Your task to perform on an android device: turn on notifications settings in the gmail app Image 0: 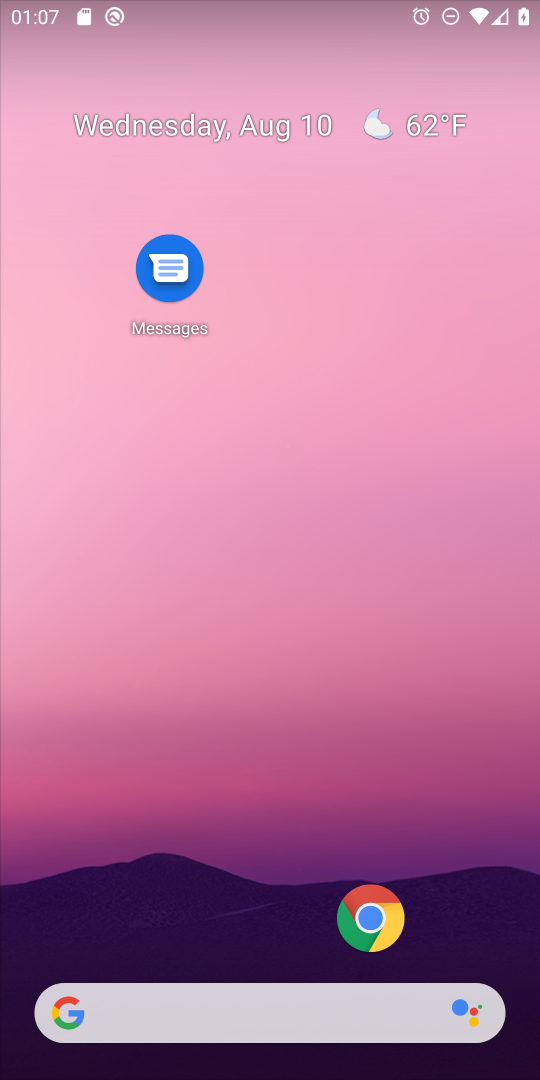
Step 0: drag from (135, 868) to (430, 101)
Your task to perform on an android device: turn on notifications settings in the gmail app Image 1: 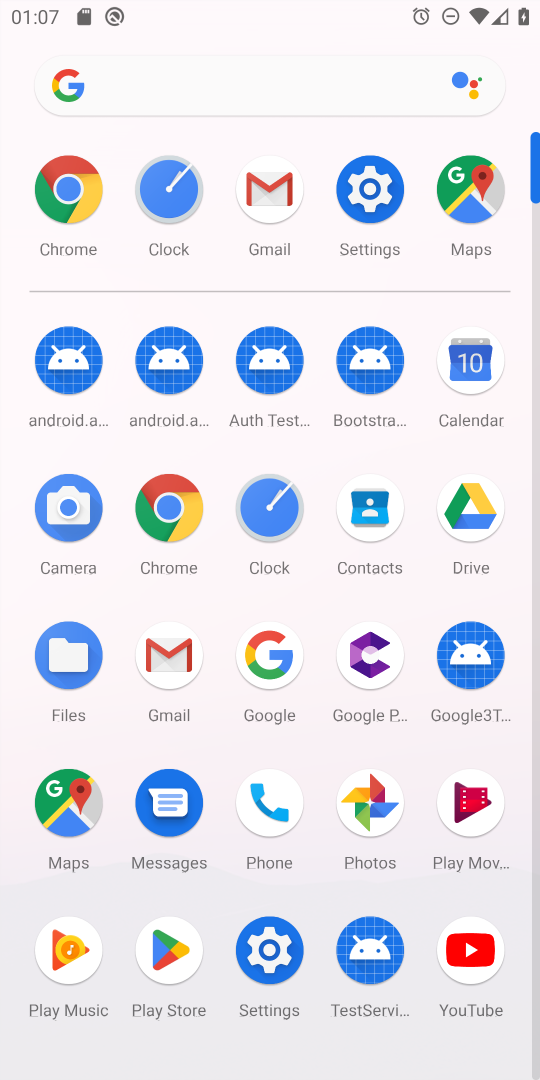
Step 1: click (165, 657)
Your task to perform on an android device: turn on notifications settings in the gmail app Image 2: 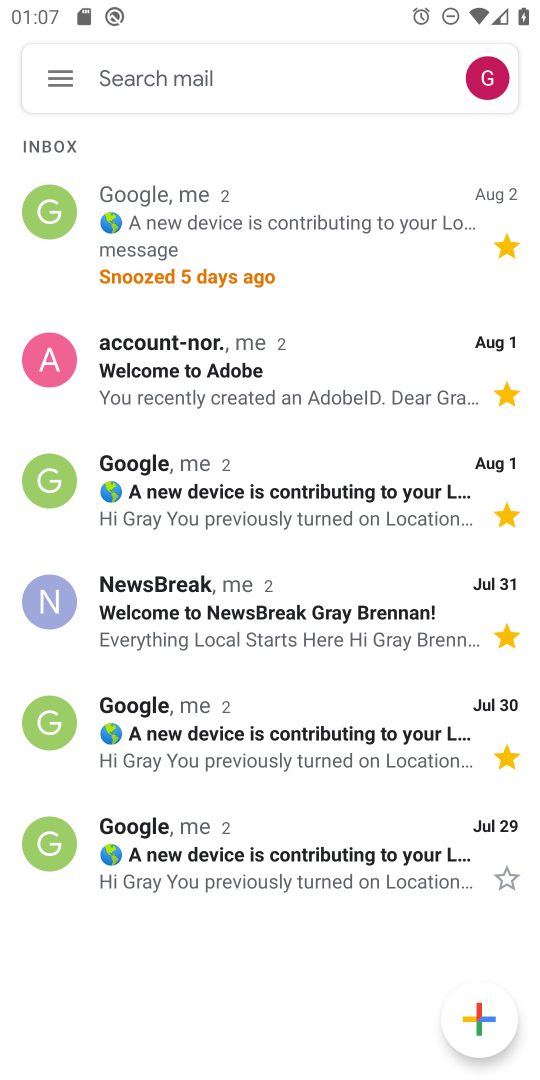
Step 2: click (56, 78)
Your task to perform on an android device: turn on notifications settings in the gmail app Image 3: 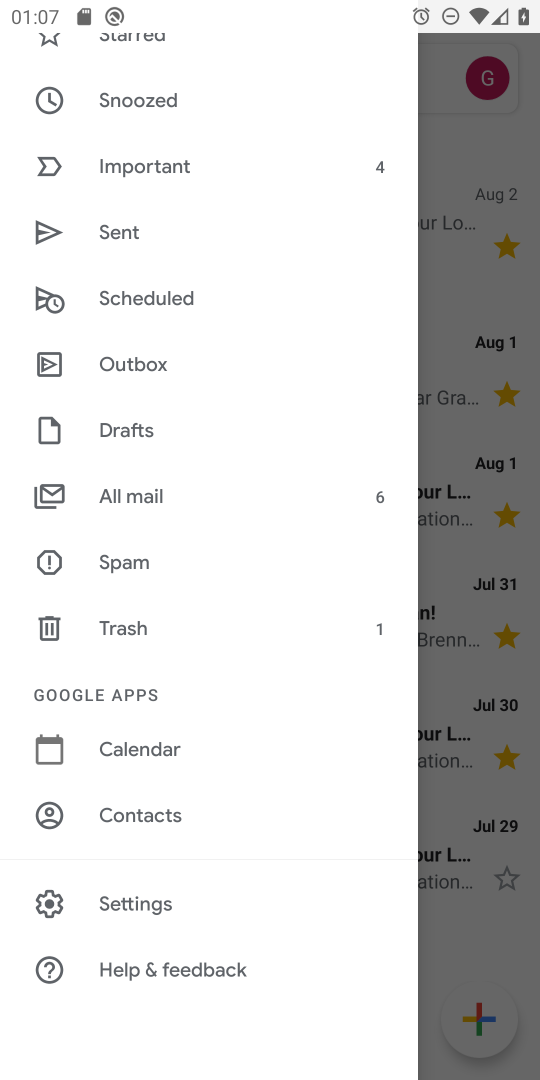
Step 3: click (156, 892)
Your task to perform on an android device: turn on notifications settings in the gmail app Image 4: 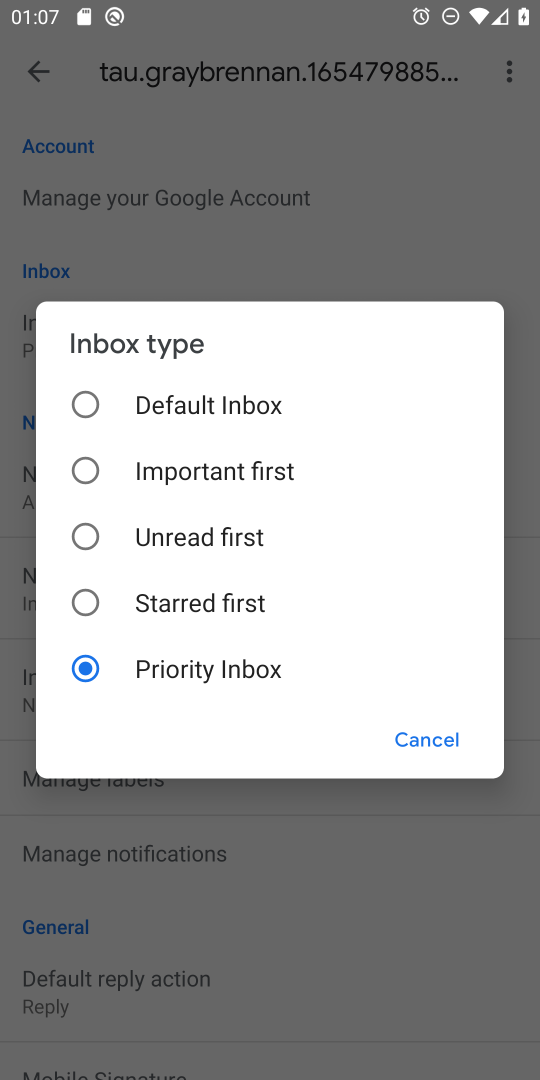
Step 4: click (422, 734)
Your task to perform on an android device: turn on notifications settings in the gmail app Image 5: 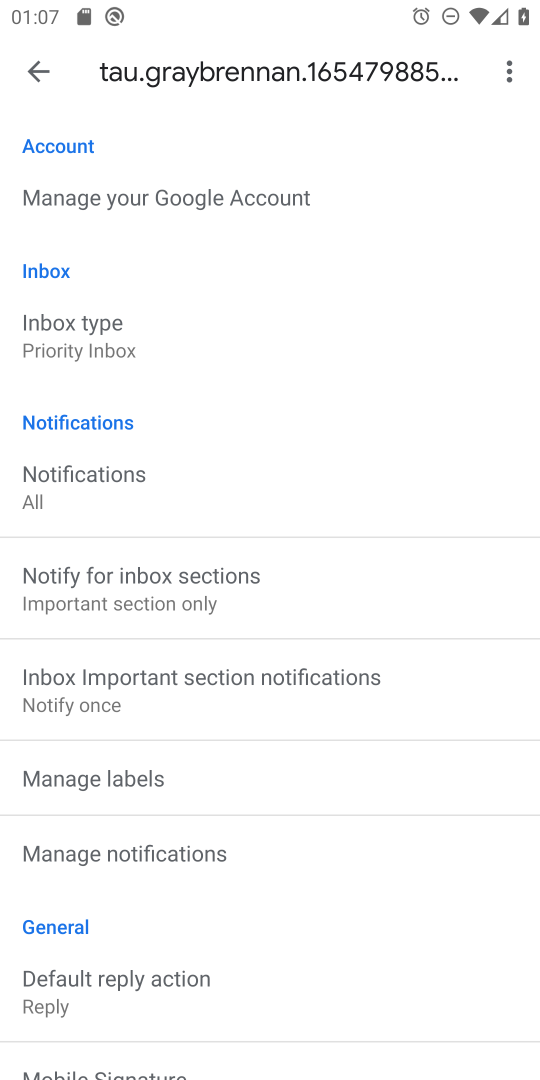
Step 5: click (132, 856)
Your task to perform on an android device: turn on notifications settings in the gmail app Image 6: 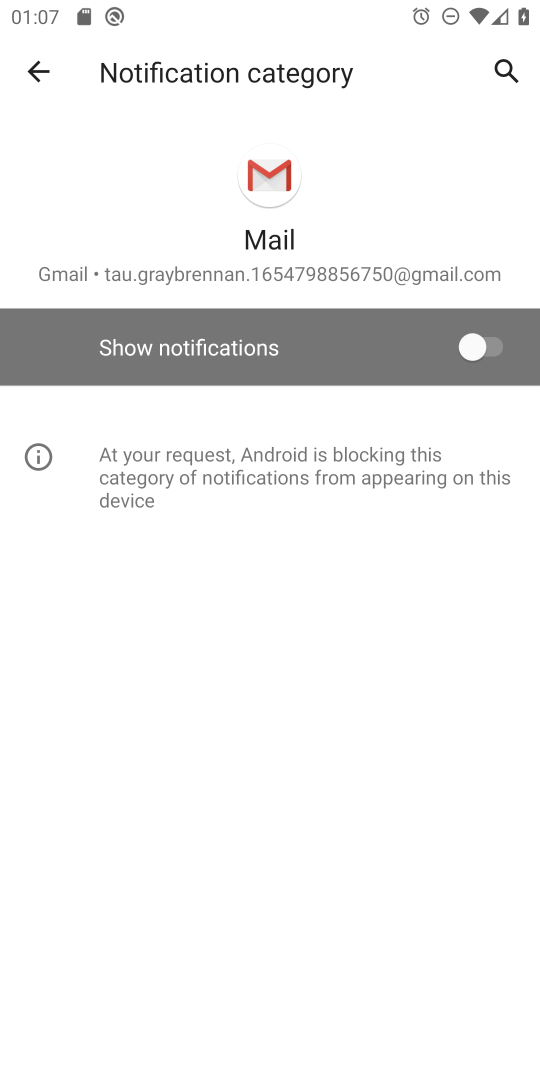
Step 6: click (445, 375)
Your task to perform on an android device: turn on notifications settings in the gmail app Image 7: 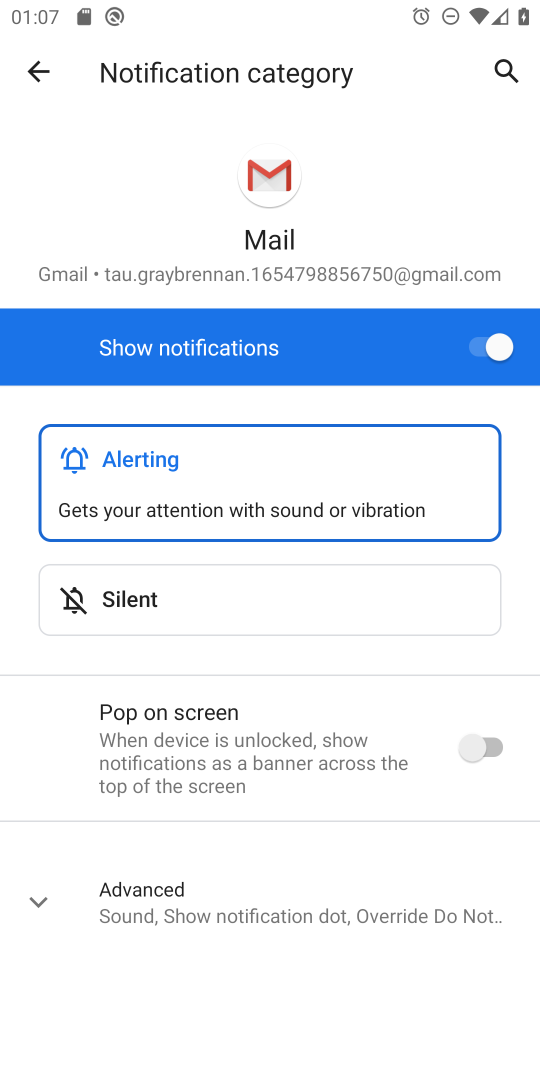
Step 7: task complete